Your task to perform on an android device: change notifications settings Image 0: 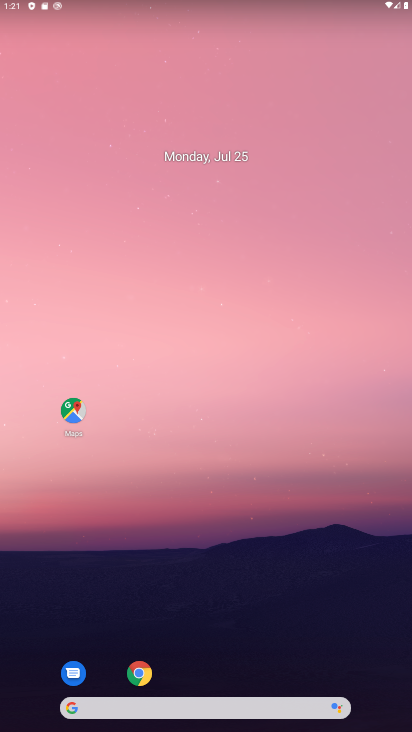
Step 0: drag from (184, 671) to (278, 36)
Your task to perform on an android device: change notifications settings Image 1: 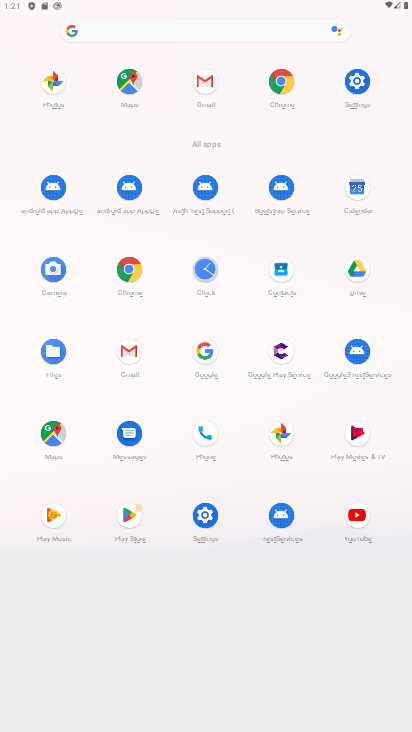
Step 1: click (351, 68)
Your task to perform on an android device: change notifications settings Image 2: 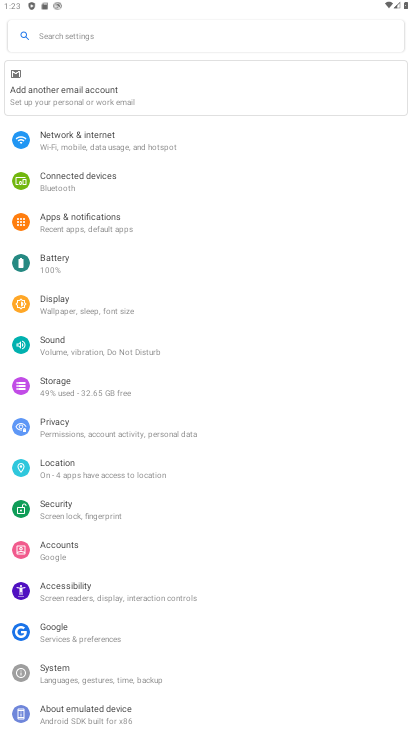
Step 2: click (98, 210)
Your task to perform on an android device: change notifications settings Image 3: 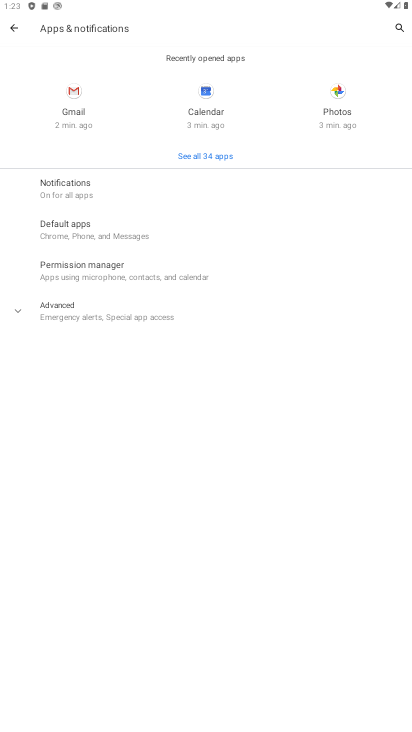
Step 3: click (78, 200)
Your task to perform on an android device: change notifications settings Image 4: 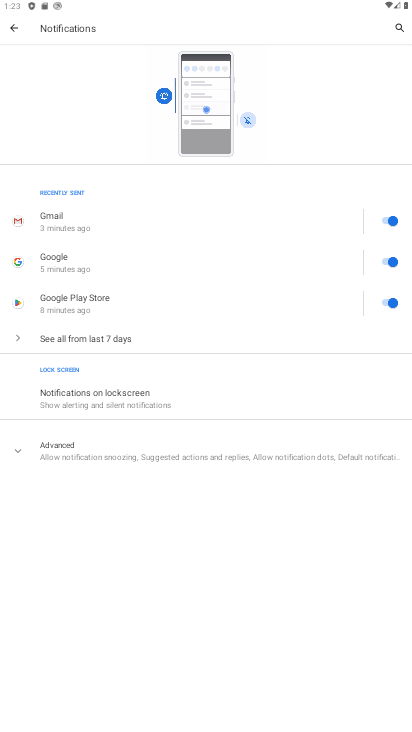
Step 4: click (118, 457)
Your task to perform on an android device: change notifications settings Image 5: 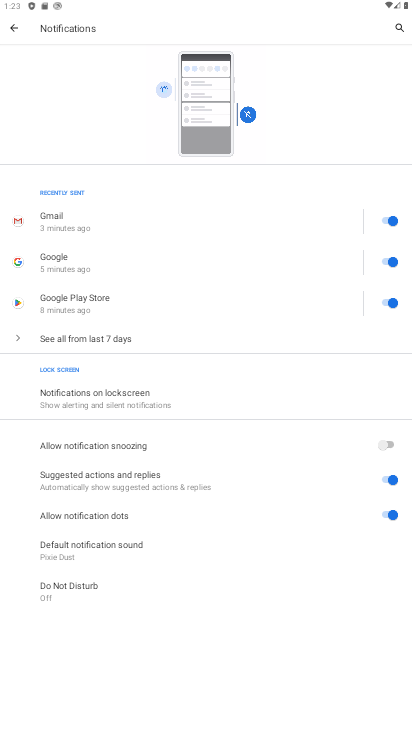
Step 5: click (393, 481)
Your task to perform on an android device: change notifications settings Image 6: 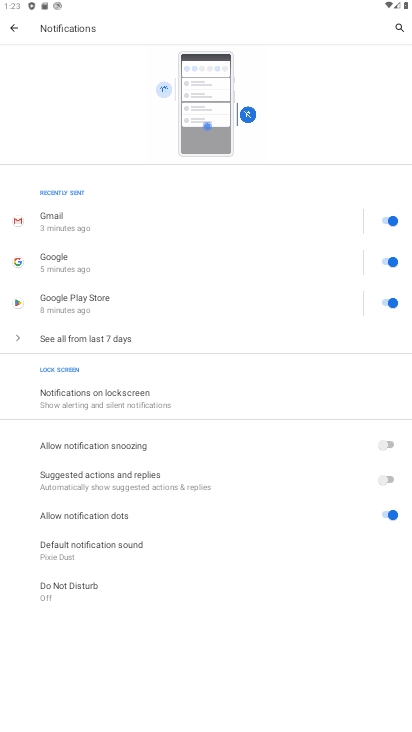
Step 6: click (390, 449)
Your task to perform on an android device: change notifications settings Image 7: 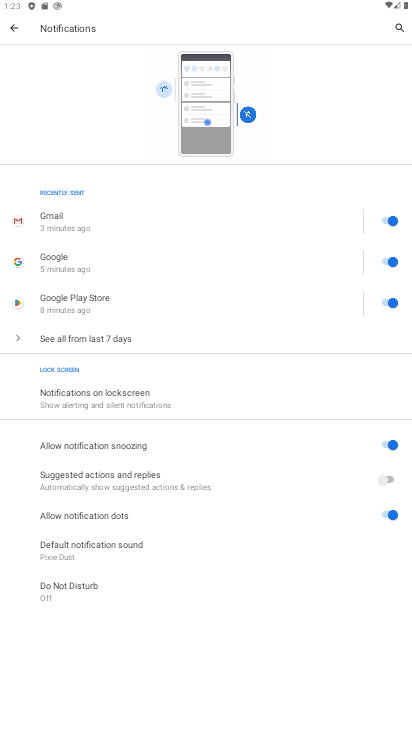
Step 7: click (390, 449)
Your task to perform on an android device: change notifications settings Image 8: 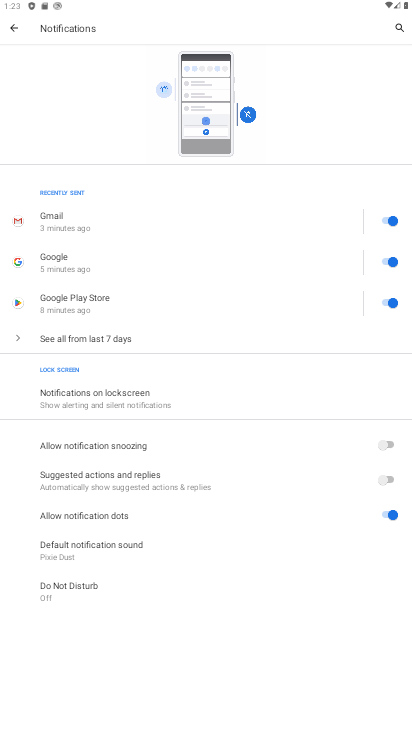
Step 8: click (390, 449)
Your task to perform on an android device: change notifications settings Image 9: 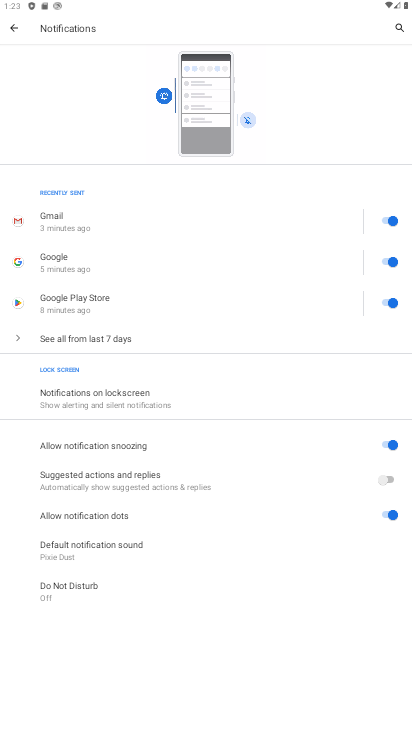
Step 9: task complete